Your task to perform on an android device: Go to battery settings Image 0: 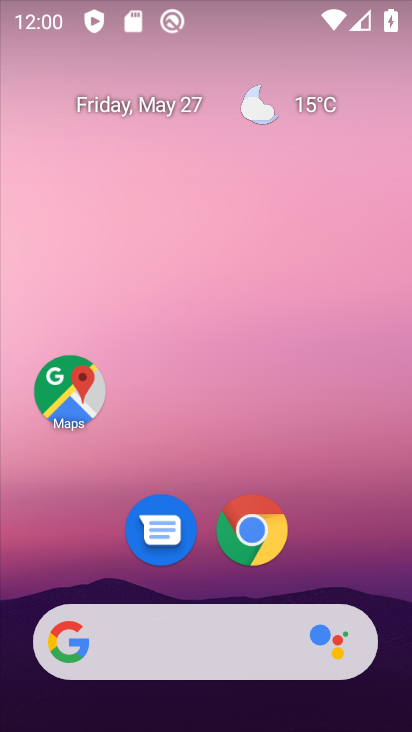
Step 0: drag from (84, 599) to (185, 146)
Your task to perform on an android device: Go to battery settings Image 1: 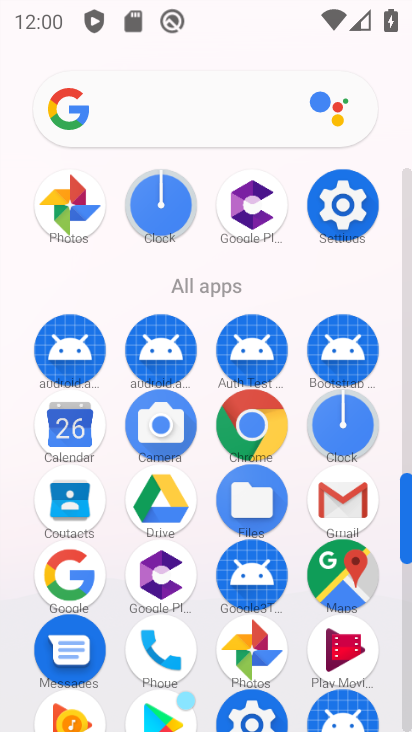
Step 1: drag from (163, 675) to (232, 377)
Your task to perform on an android device: Go to battery settings Image 2: 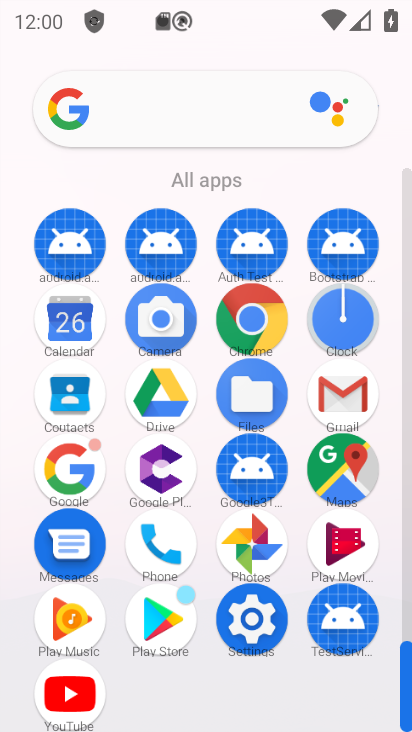
Step 2: click (259, 632)
Your task to perform on an android device: Go to battery settings Image 3: 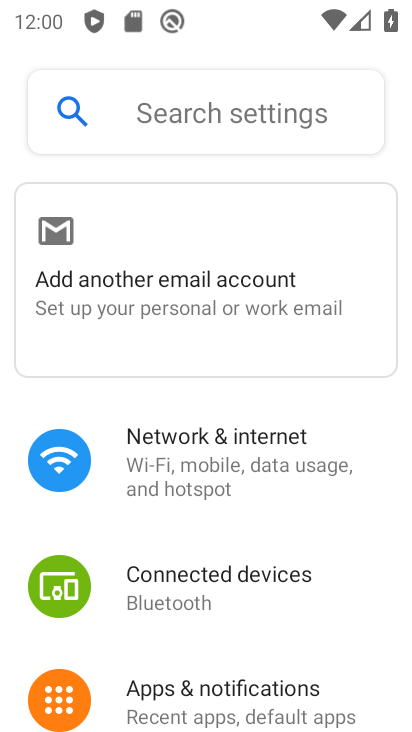
Step 3: drag from (141, 633) to (229, 231)
Your task to perform on an android device: Go to battery settings Image 4: 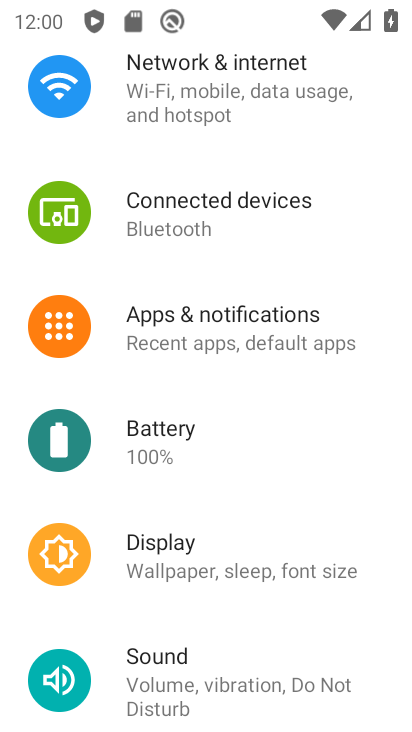
Step 4: click (165, 441)
Your task to perform on an android device: Go to battery settings Image 5: 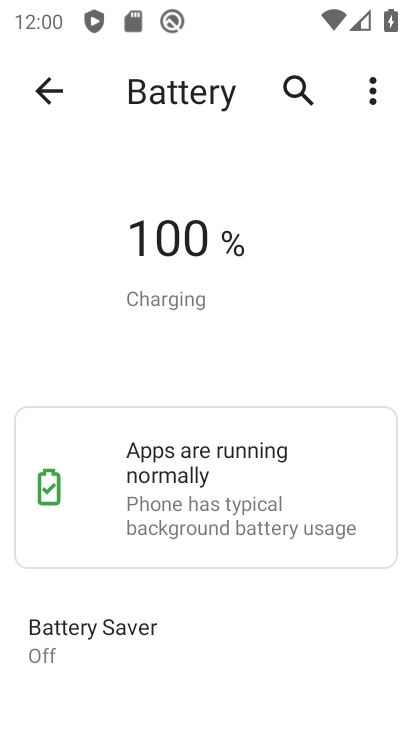
Step 5: task complete